Your task to perform on an android device: check storage Image 0: 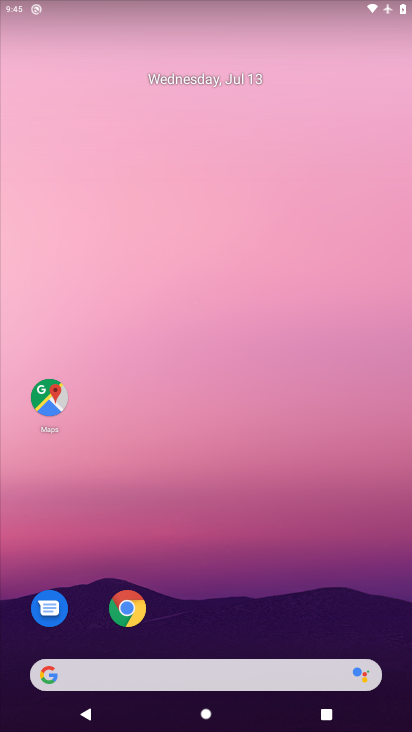
Step 0: drag from (34, 694) to (405, 193)
Your task to perform on an android device: check storage Image 1: 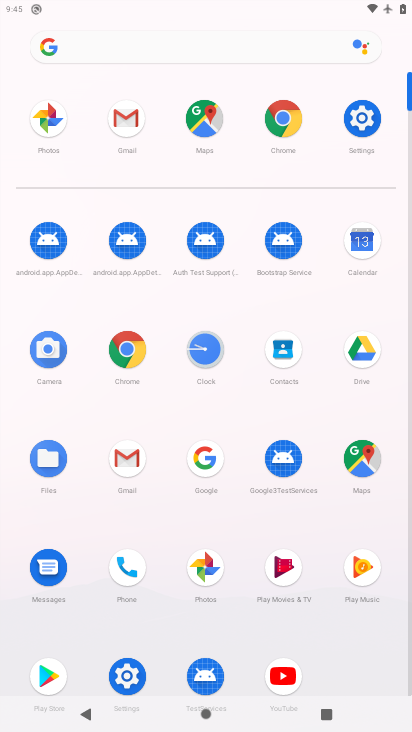
Step 1: click (138, 678)
Your task to perform on an android device: check storage Image 2: 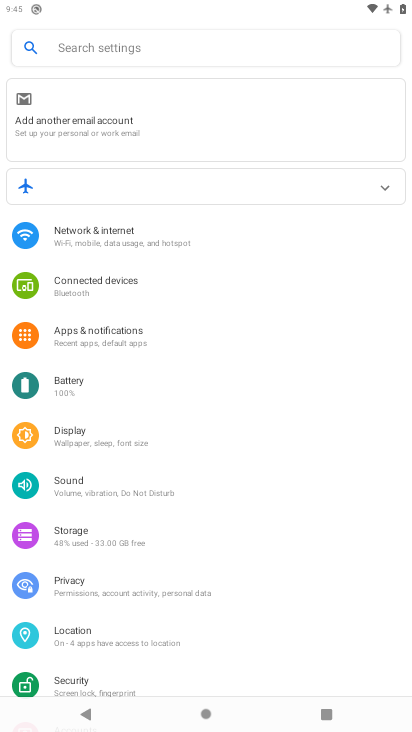
Step 2: click (81, 536)
Your task to perform on an android device: check storage Image 3: 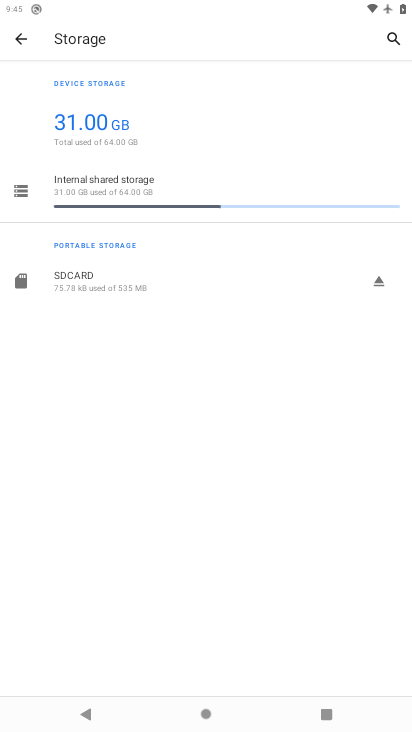
Step 3: task complete